Your task to perform on an android device: turn off sleep mode Image 0: 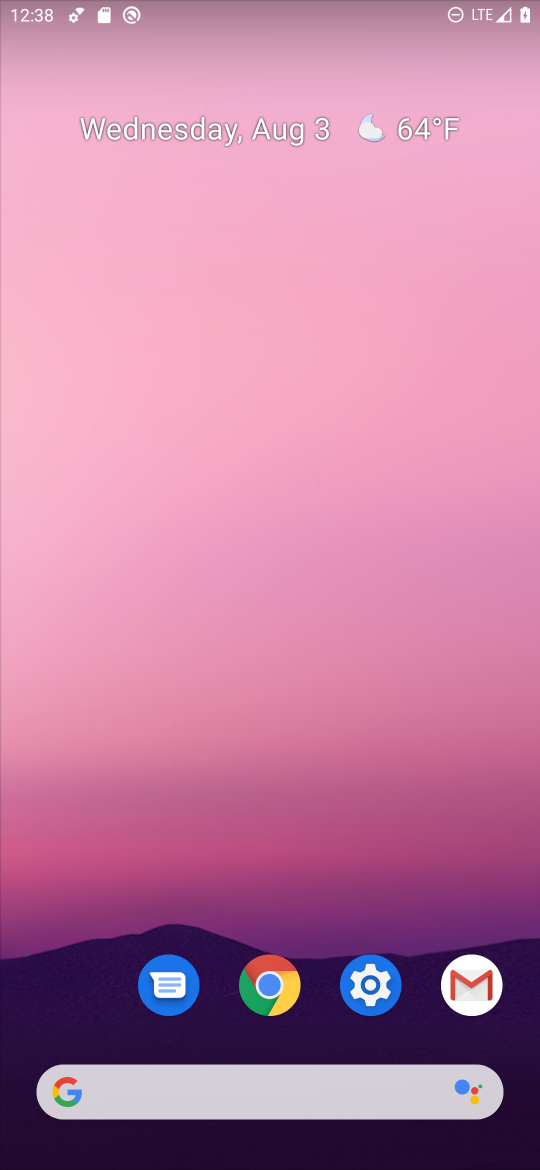
Step 0: press home button
Your task to perform on an android device: turn off sleep mode Image 1: 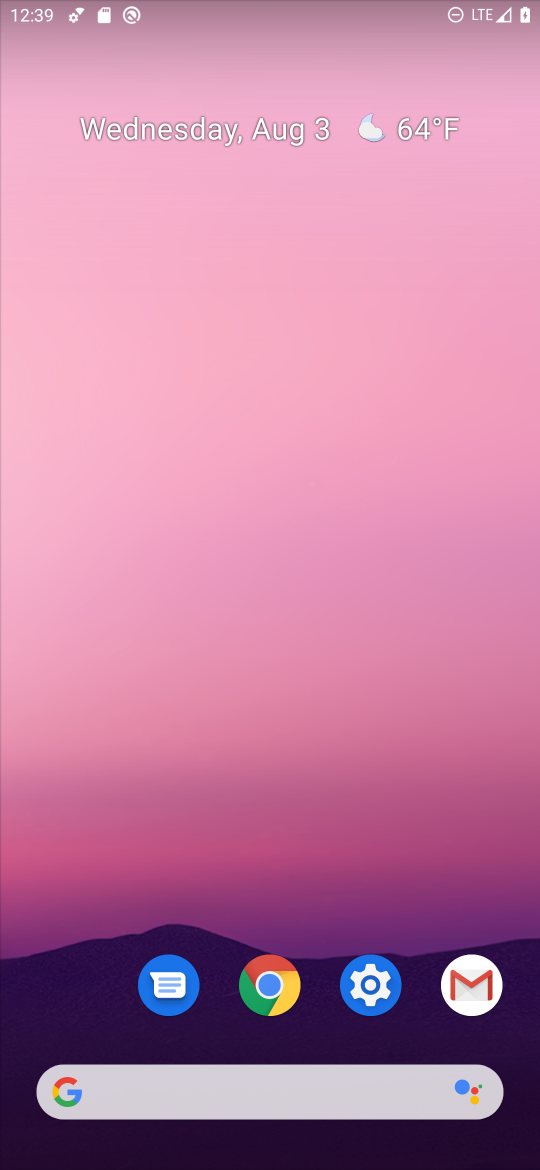
Step 1: click (364, 1002)
Your task to perform on an android device: turn off sleep mode Image 2: 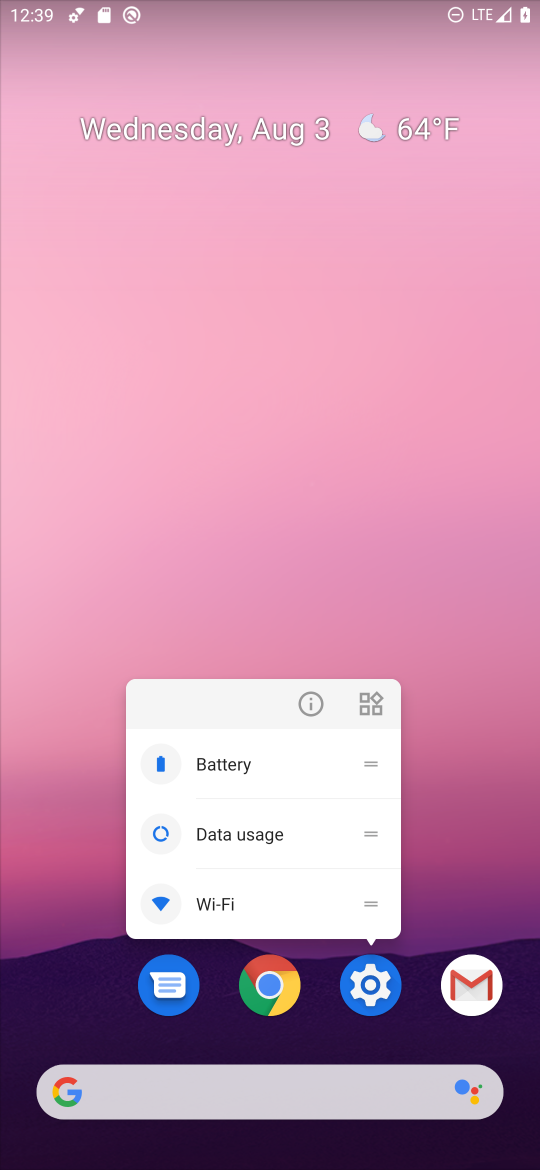
Step 2: click (366, 990)
Your task to perform on an android device: turn off sleep mode Image 3: 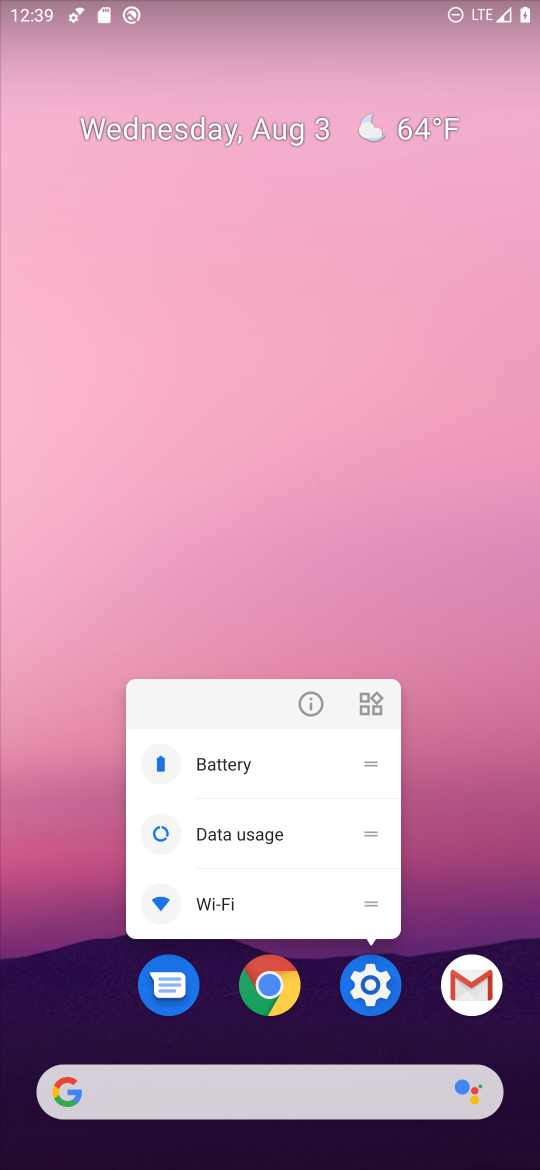
Step 3: click (369, 990)
Your task to perform on an android device: turn off sleep mode Image 4: 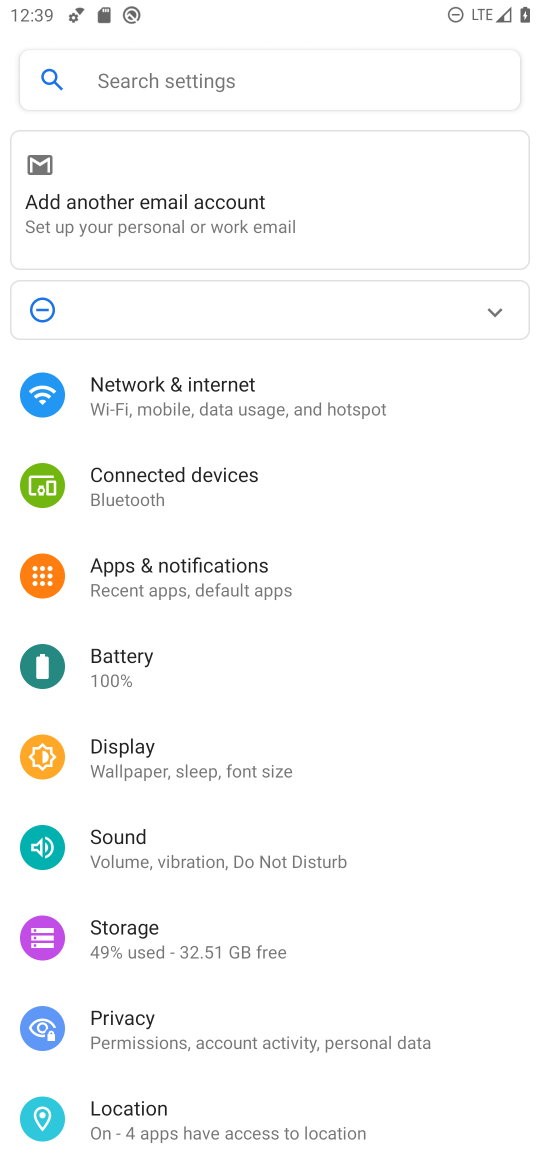
Step 4: click (149, 75)
Your task to perform on an android device: turn off sleep mode Image 5: 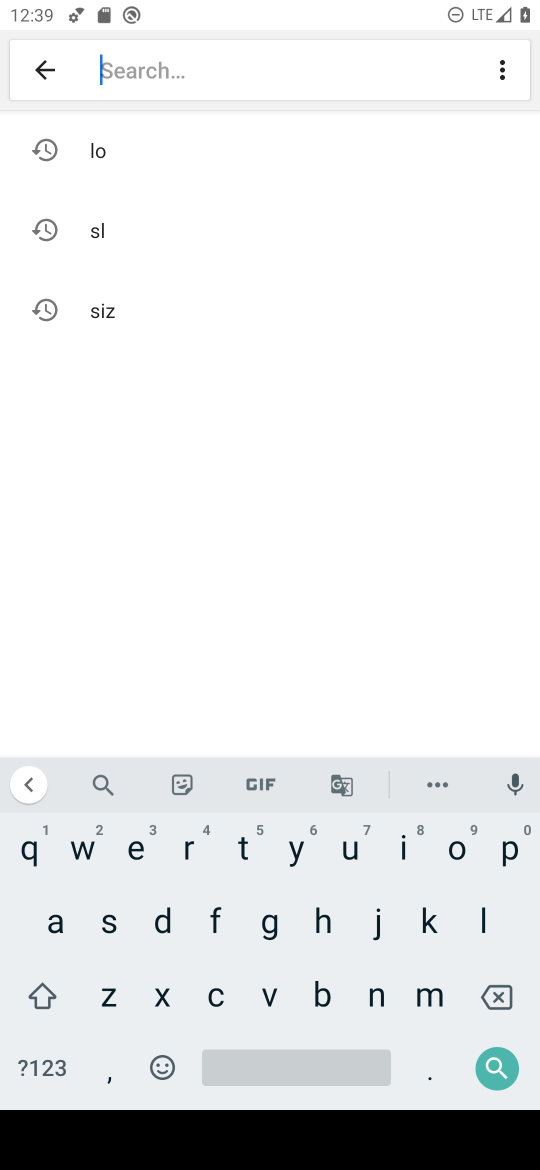
Step 5: click (106, 925)
Your task to perform on an android device: turn off sleep mode Image 6: 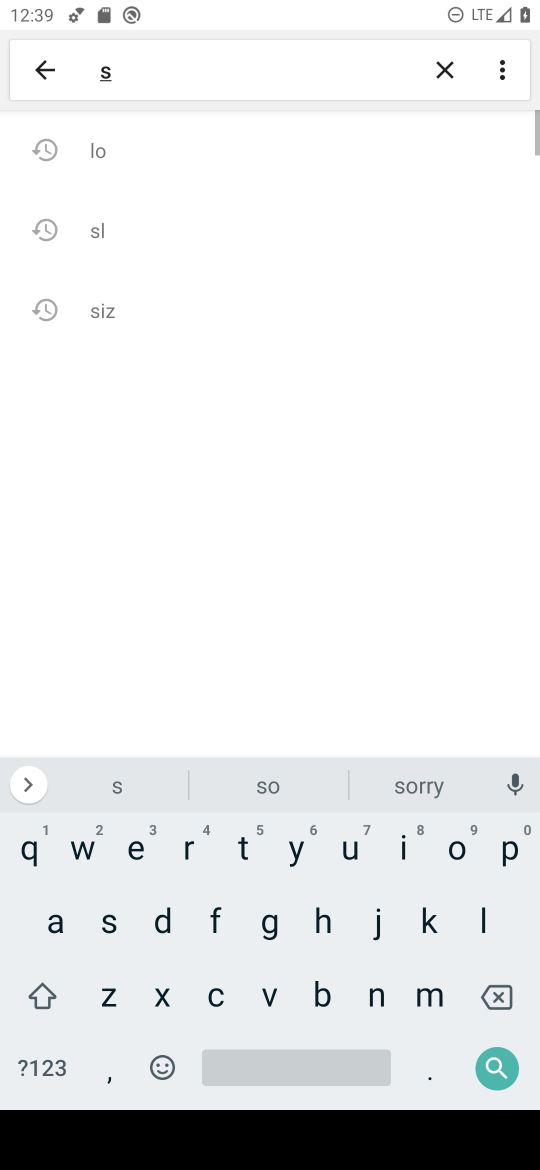
Step 6: click (484, 915)
Your task to perform on an android device: turn off sleep mode Image 7: 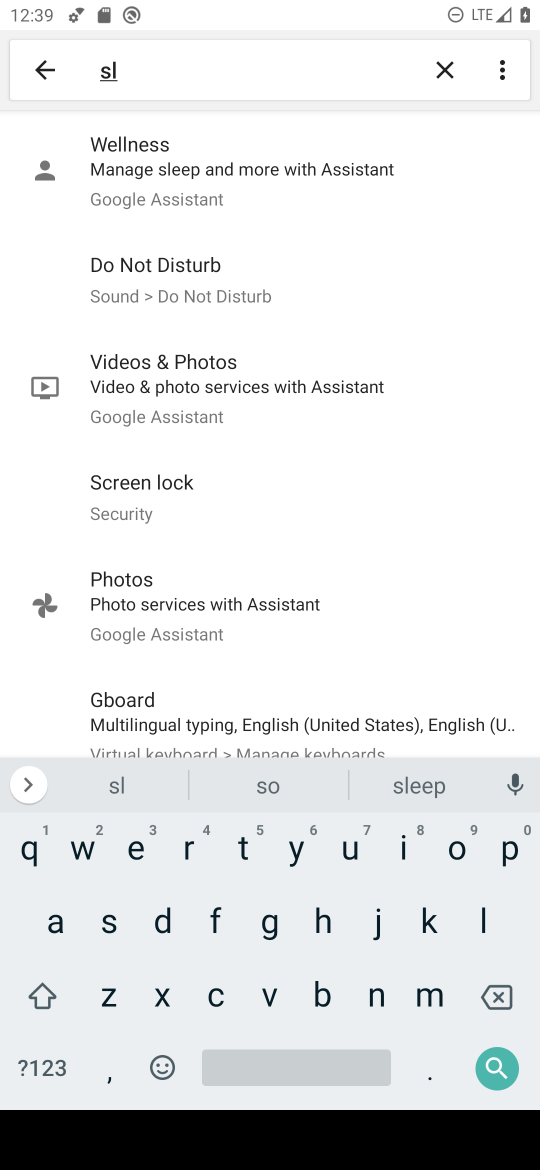
Step 7: click (165, 301)
Your task to perform on an android device: turn off sleep mode Image 8: 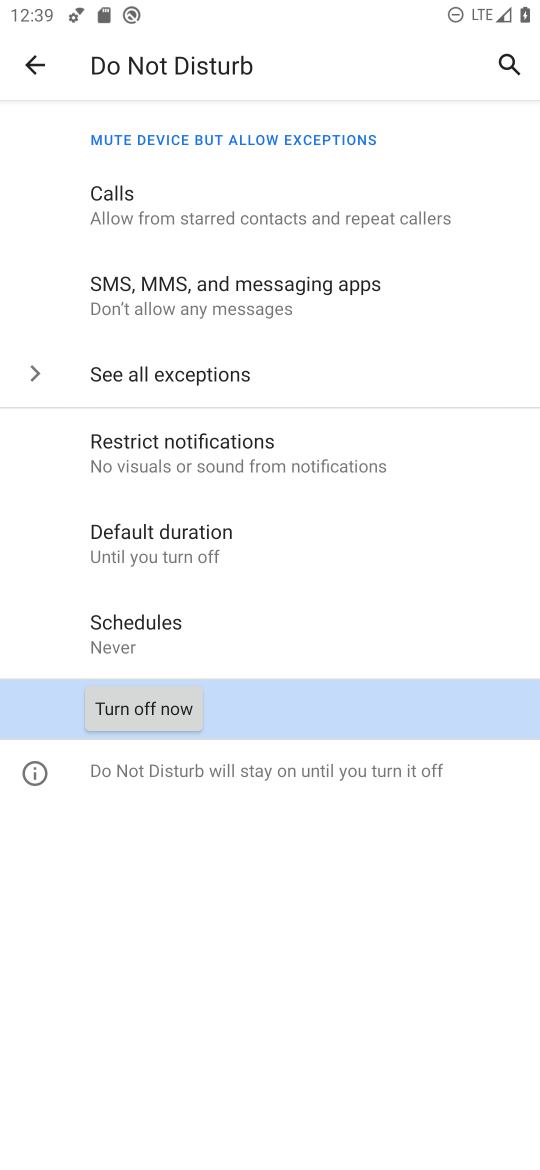
Step 8: click (144, 708)
Your task to perform on an android device: turn off sleep mode Image 9: 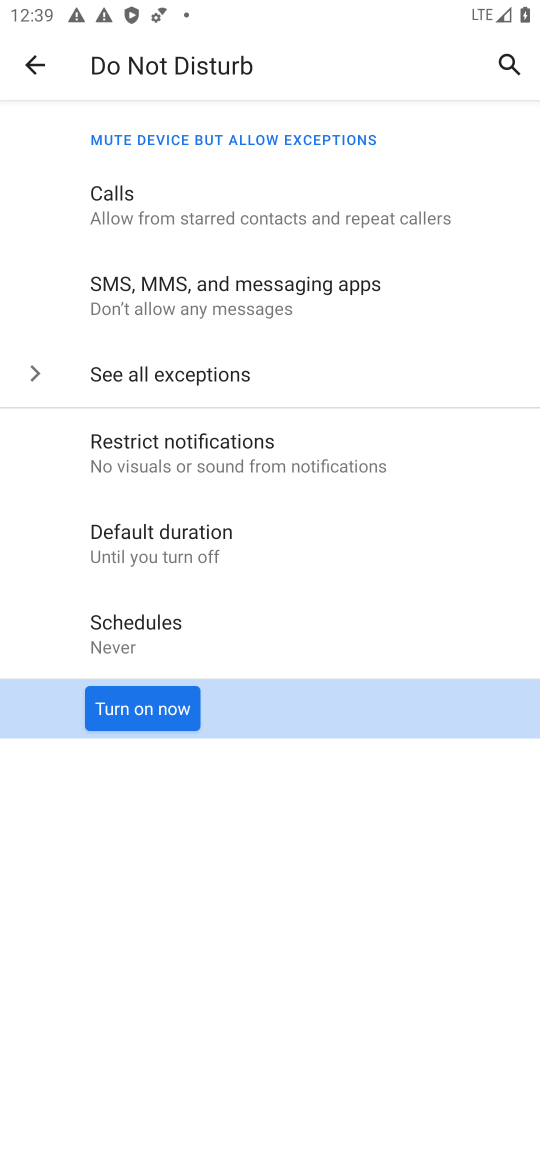
Step 9: click (144, 708)
Your task to perform on an android device: turn off sleep mode Image 10: 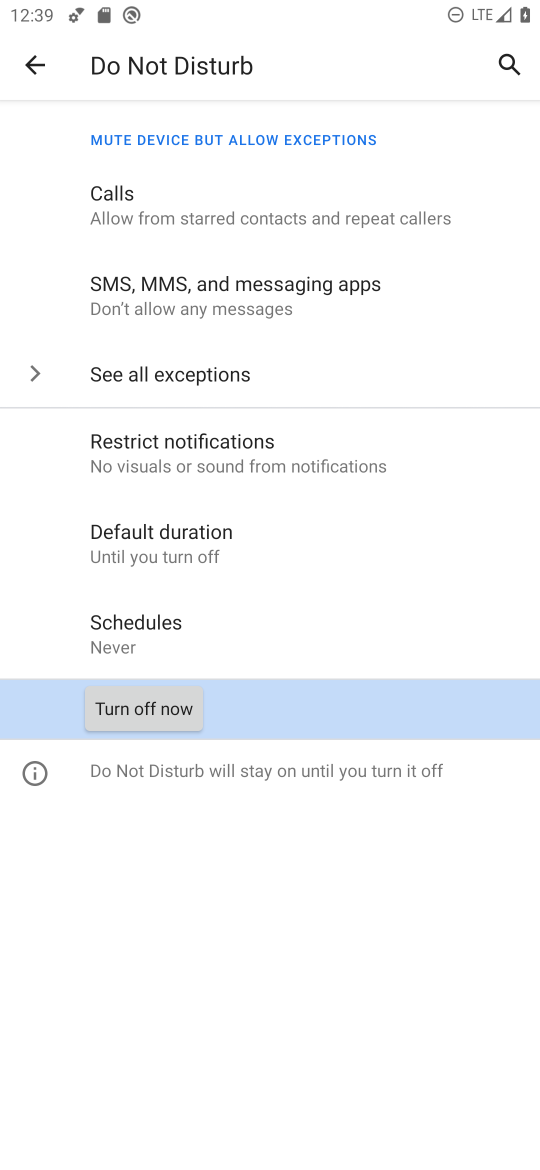
Step 10: click (161, 722)
Your task to perform on an android device: turn off sleep mode Image 11: 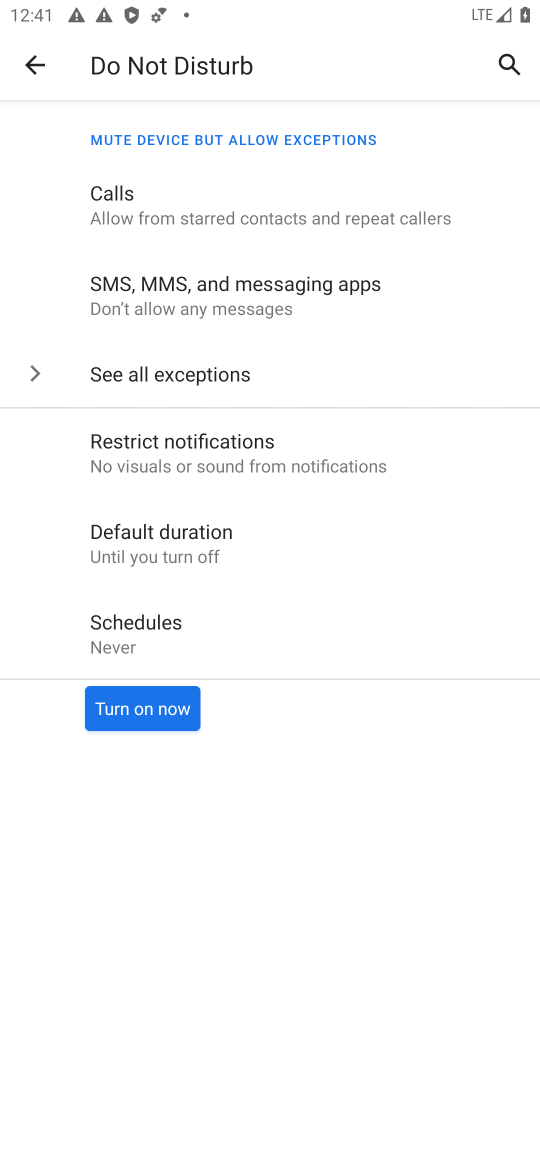
Step 11: task complete